Your task to perform on an android device: clear history in the chrome app Image 0: 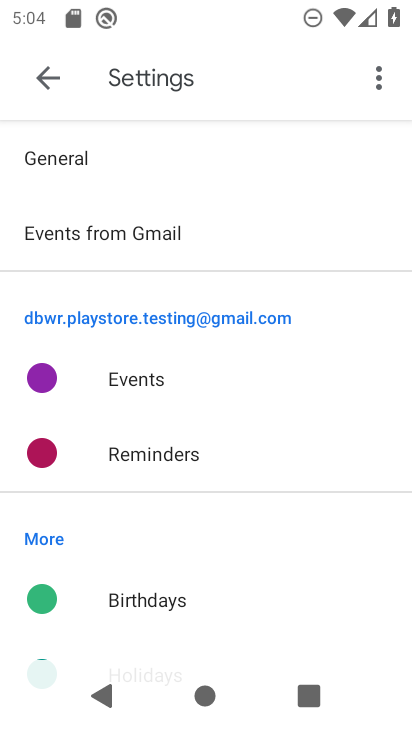
Step 0: press back button
Your task to perform on an android device: clear history in the chrome app Image 1: 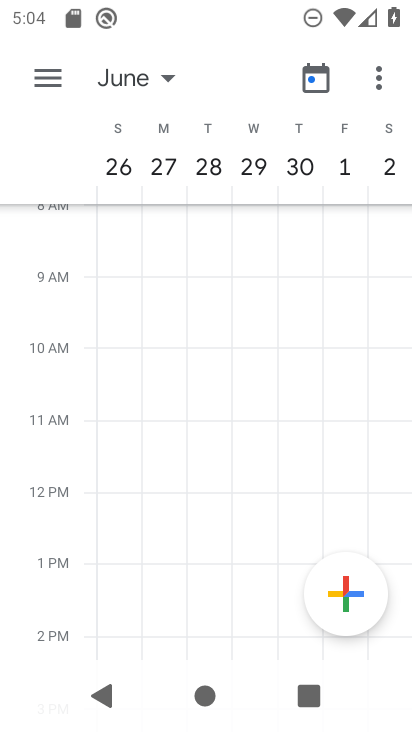
Step 1: press back button
Your task to perform on an android device: clear history in the chrome app Image 2: 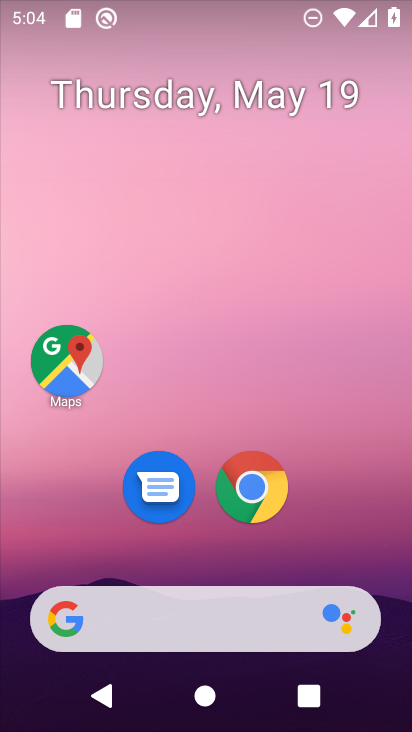
Step 2: click (253, 487)
Your task to perform on an android device: clear history in the chrome app Image 3: 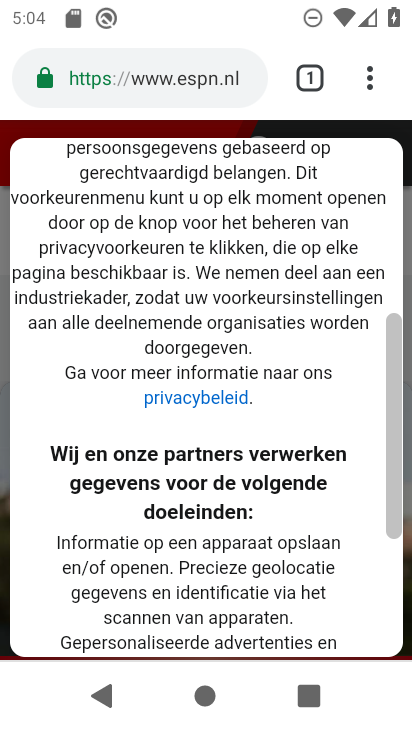
Step 3: click (369, 76)
Your task to perform on an android device: clear history in the chrome app Image 4: 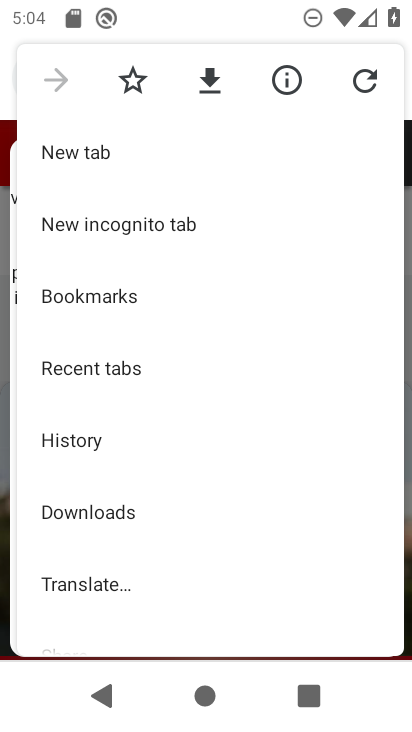
Step 4: drag from (127, 456) to (186, 375)
Your task to perform on an android device: clear history in the chrome app Image 5: 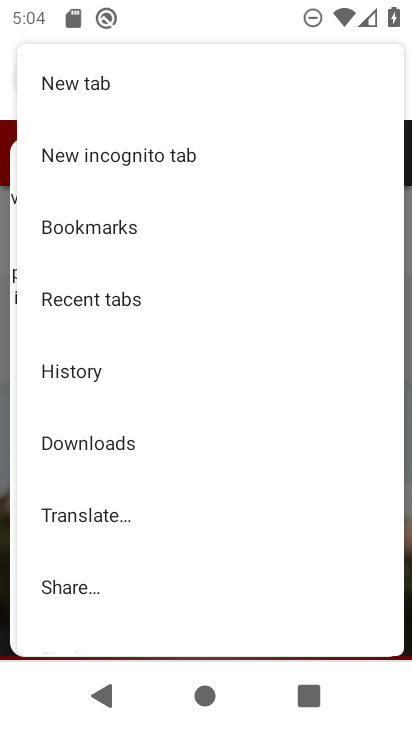
Step 5: click (80, 371)
Your task to perform on an android device: clear history in the chrome app Image 6: 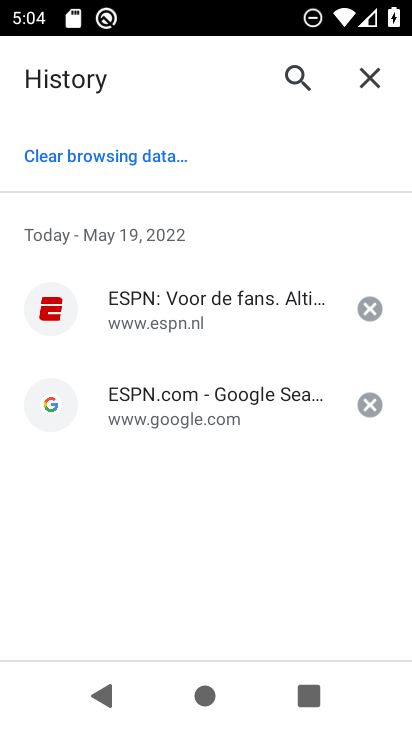
Step 6: click (129, 150)
Your task to perform on an android device: clear history in the chrome app Image 7: 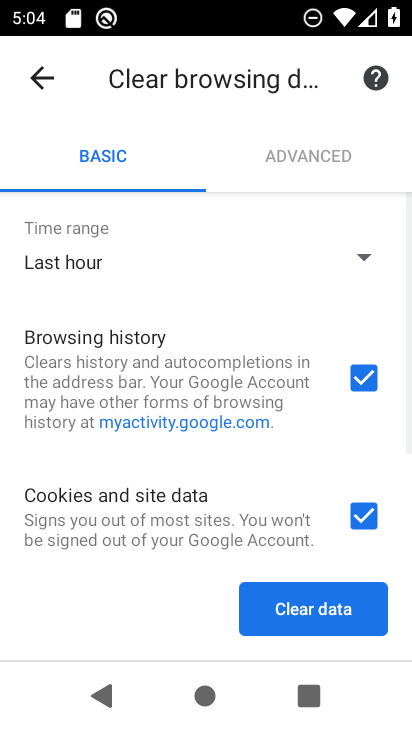
Step 7: click (282, 594)
Your task to perform on an android device: clear history in the chrome app Image 8: 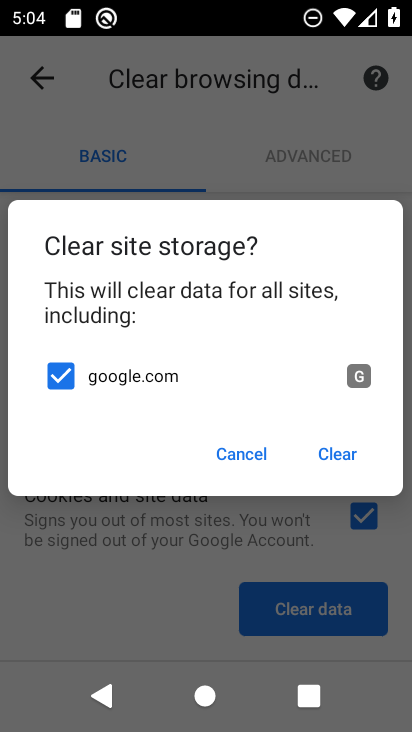
Step 8: click (347, 457)
Your task to perform on an android device: clear history in the chrome app Image 9: 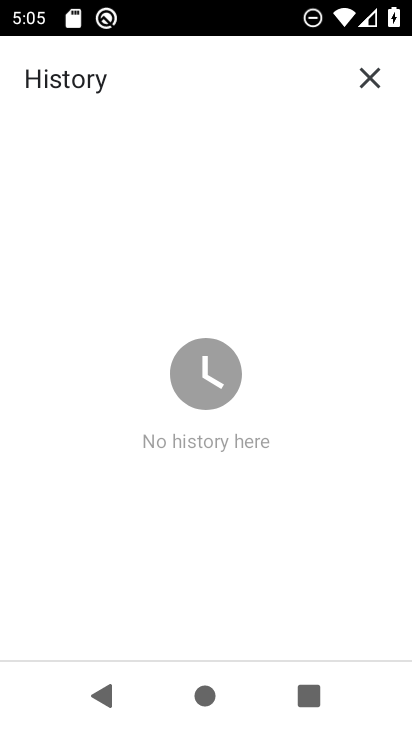
Step 9: task complete